Your task to perform on an android device: open app "Instagram" (install if not already installed) Image 0: 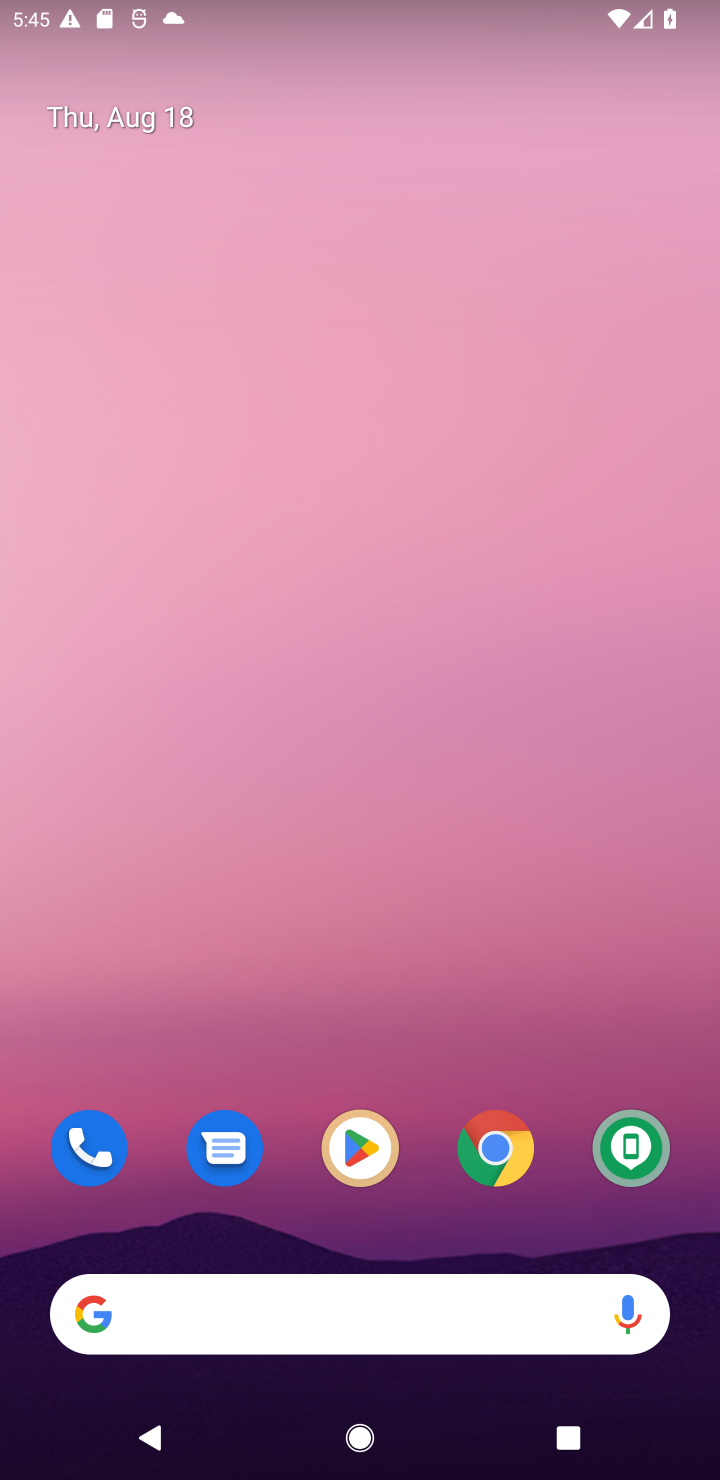
Step 0: drag from (372, 1046) to (587, 795)
Your task to perform on an android device: open app "Instagram" (install if not already installed) Image 1: 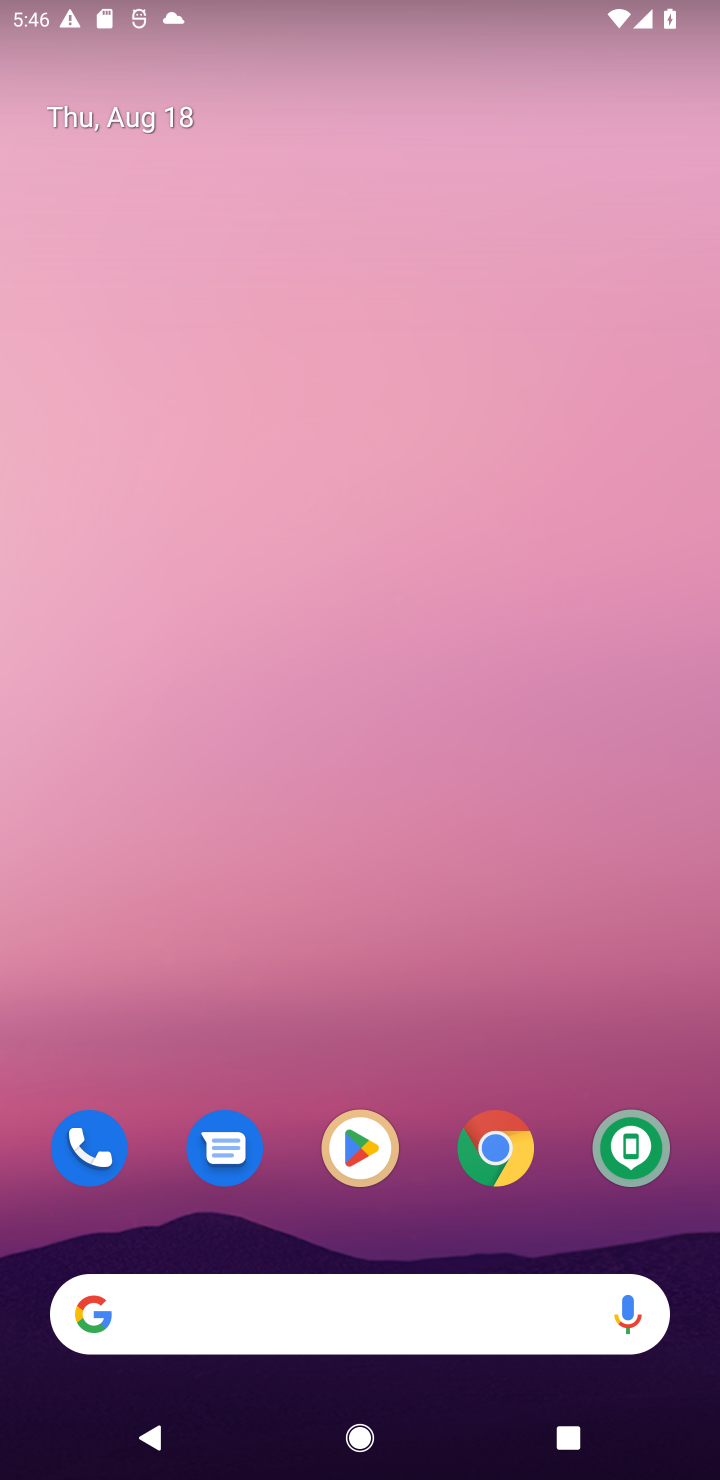
Step 1: drag from (247, 958) to (265, 0)
Your task to perform on an android device: open app "Instagram" (install if not already installed) Image 2: 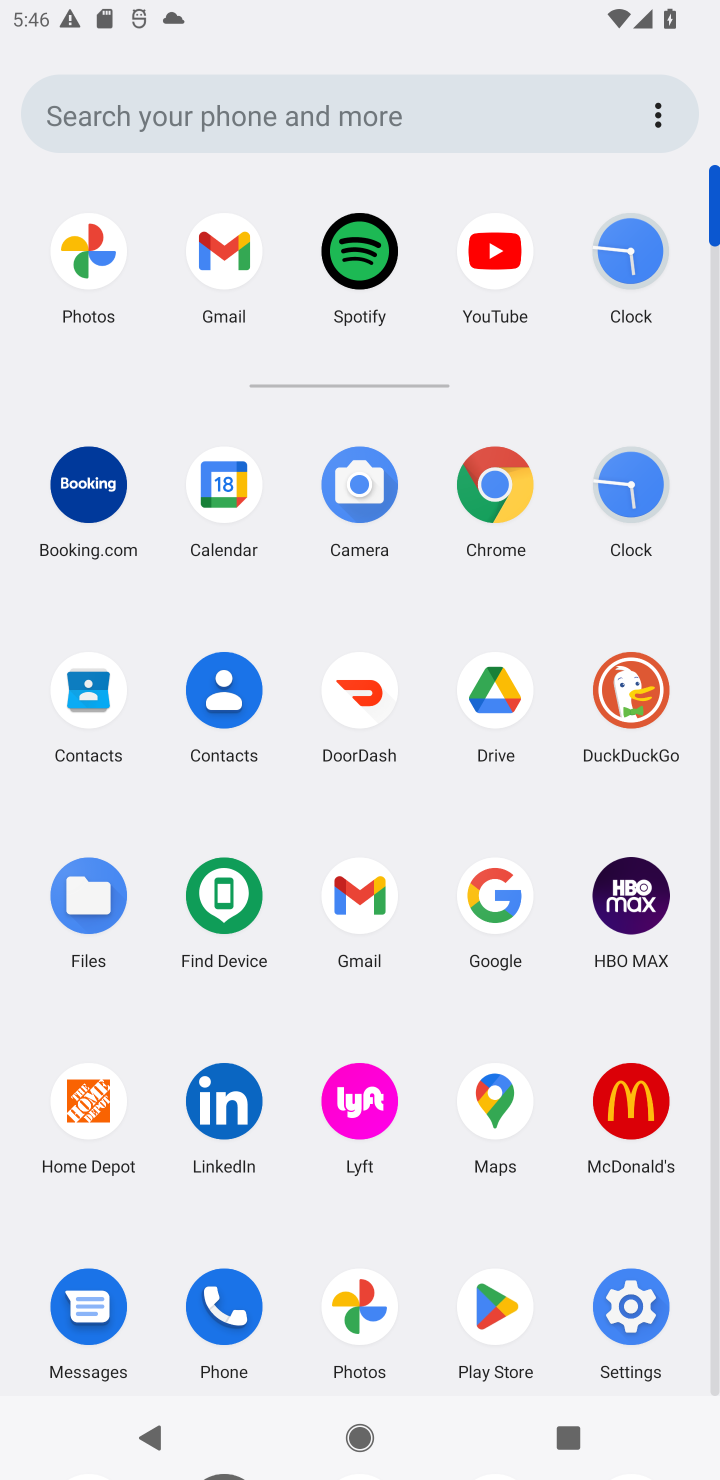
Step 2: click (497, 1305)
Your task to perform on an android device: open app "Instagram" (install if not already installed) Image 3: 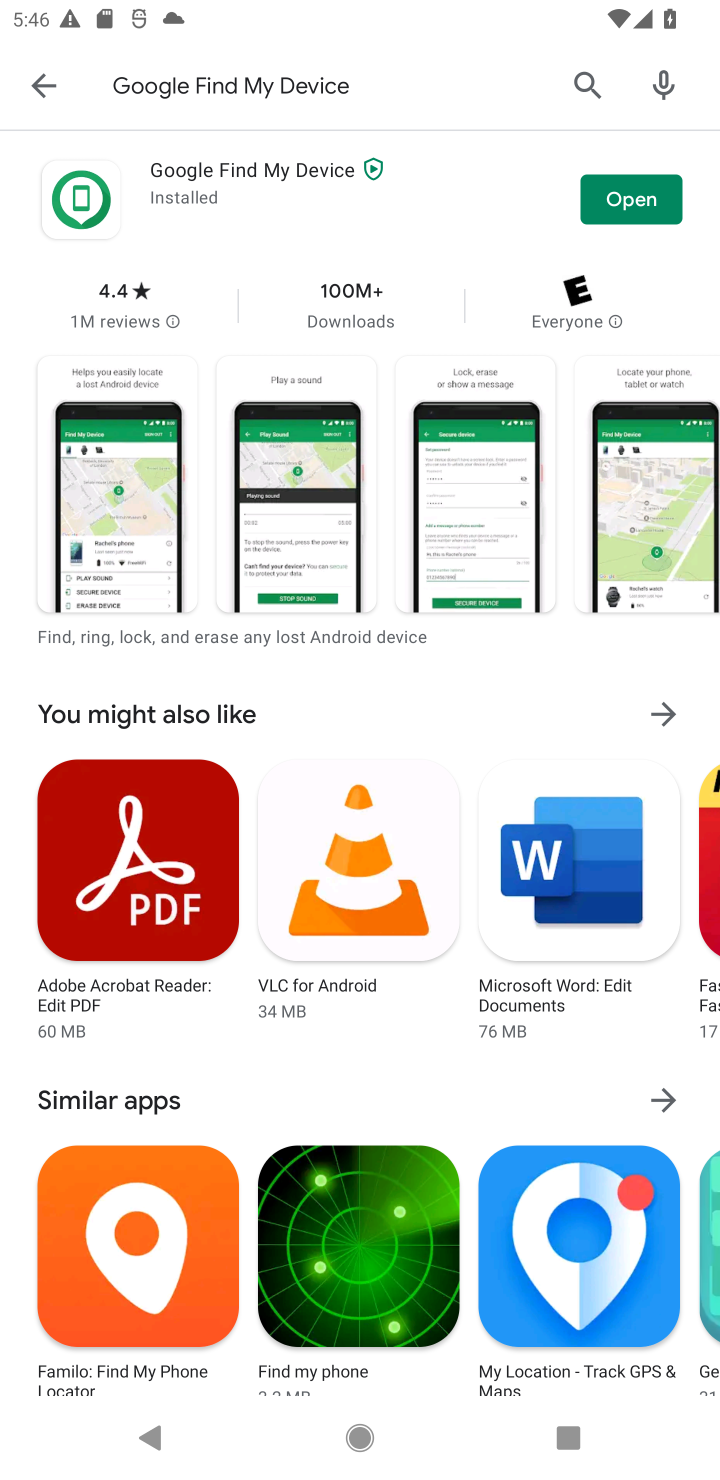
Step 3: press back button
Your task to perform on an android device: open app "Instagram" (install if not already installed) Image 4: 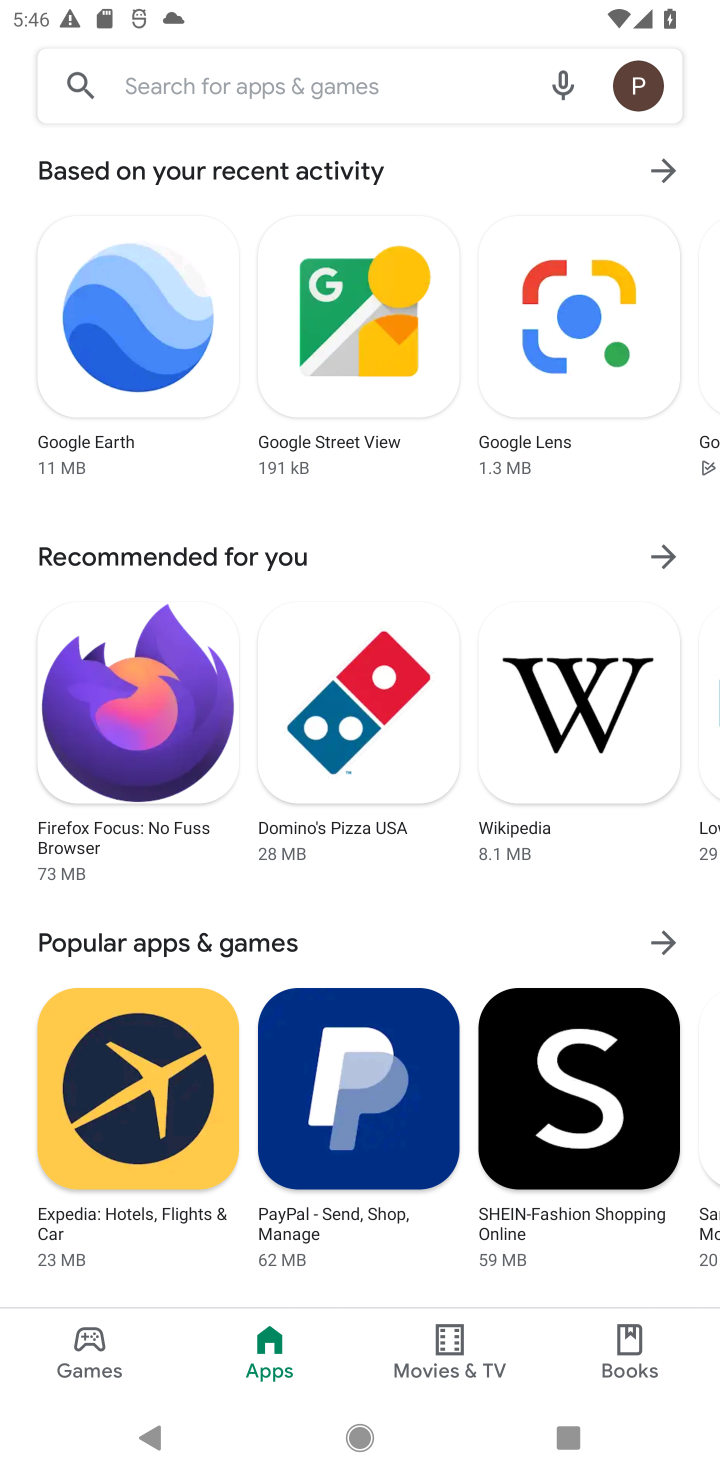
Step 4: click (144, 89)
Your task to perform on an android device: open app "Instagram" (install if not already installed) Image 5: 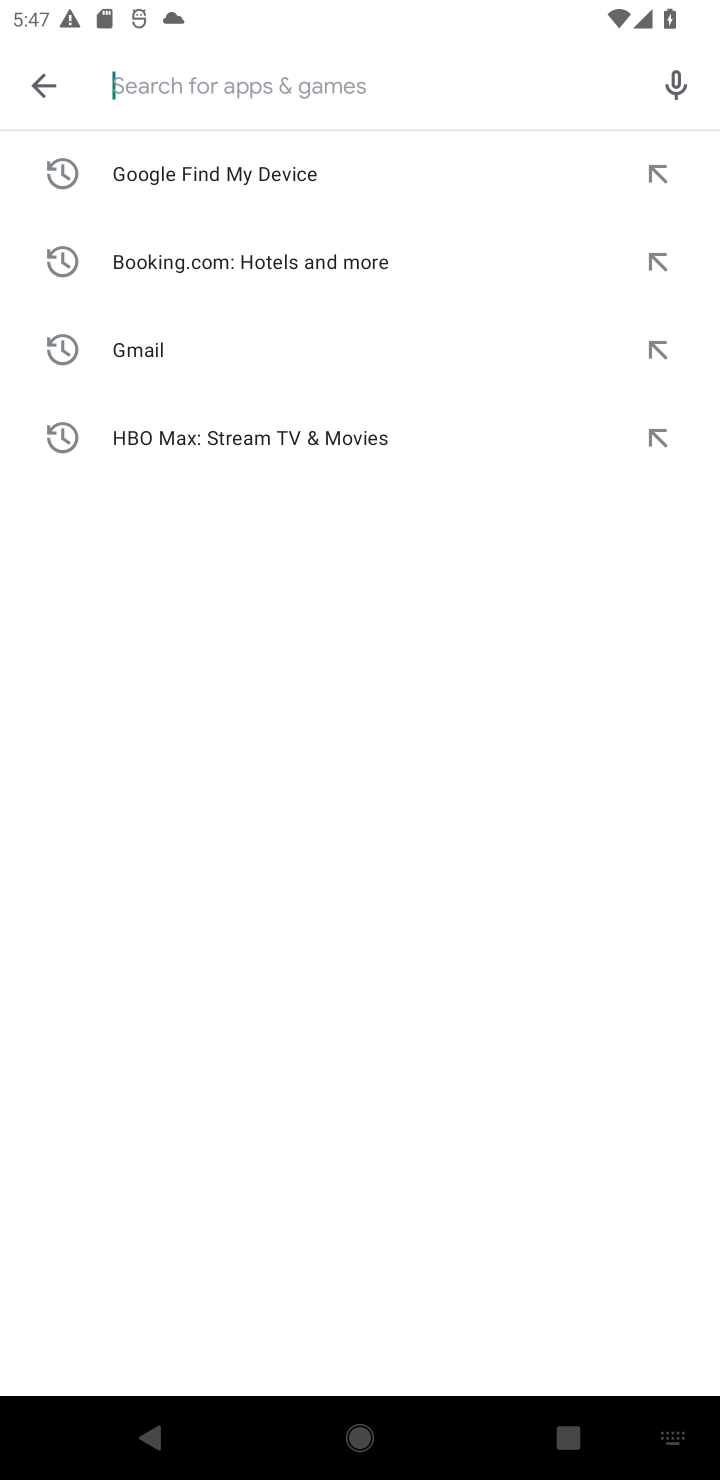
Step 5: type "Instagram"
Your task to perform on an android device: open app "Instagram" (install if not already installed) Image 6: 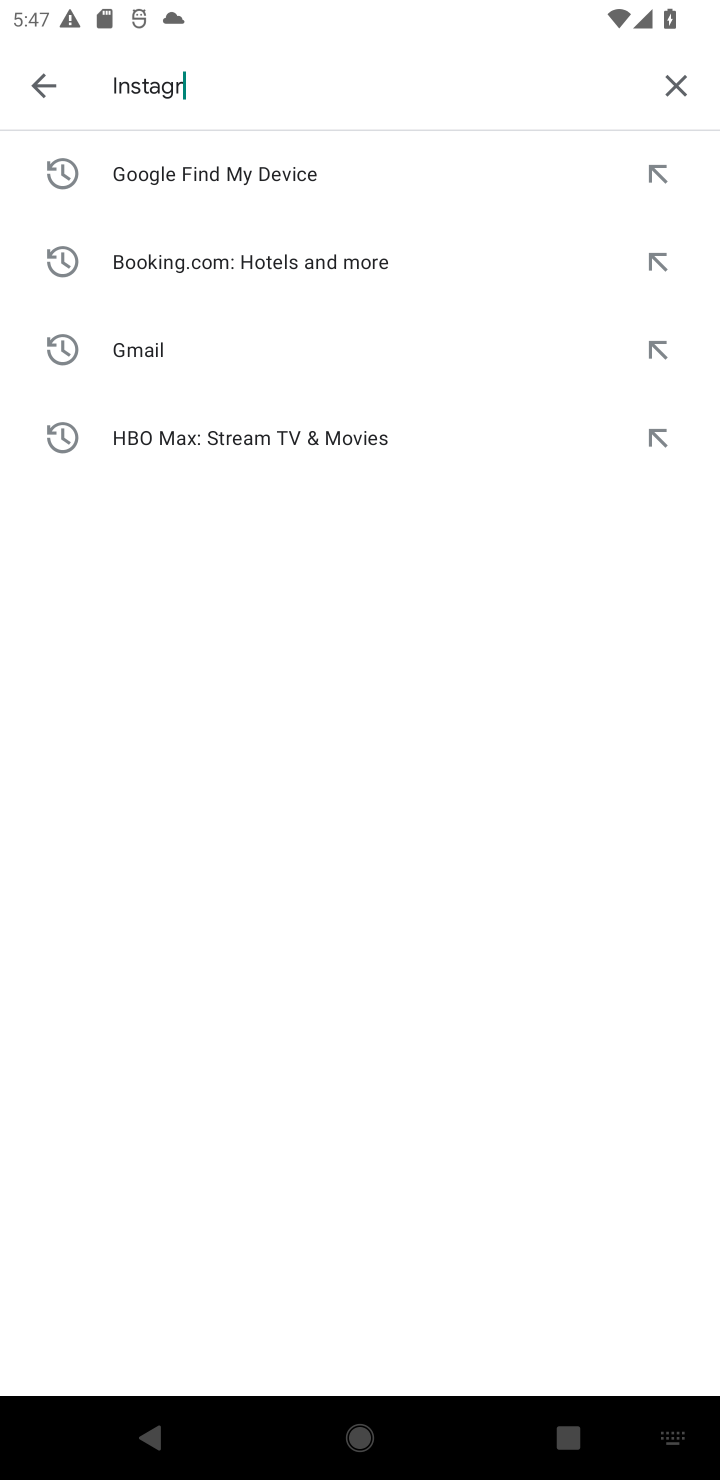
Step 6: press enter
Your task to perform on an android device: open app "Instagram" (install if not already installed) Image 7: 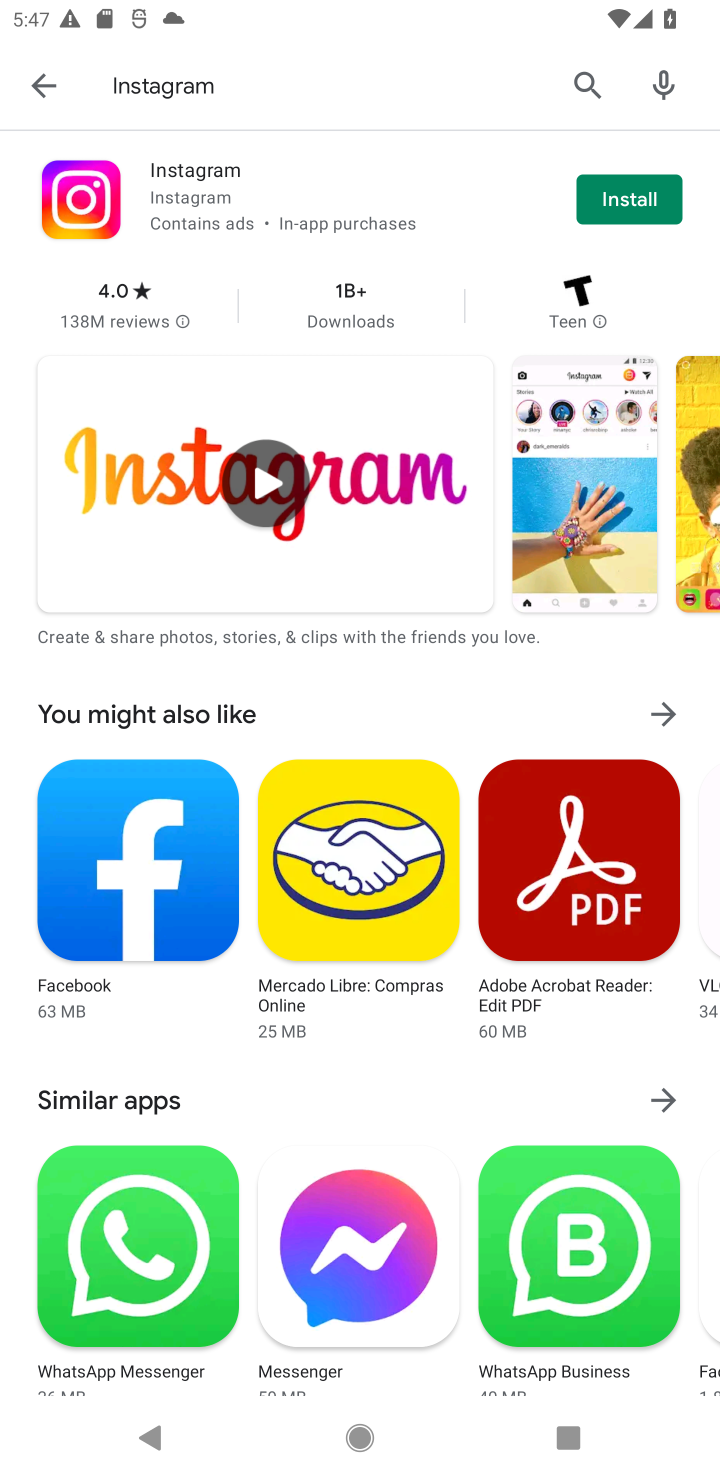
Step 7: click (615, 206)
Your task to perform on an android device: open app "Instagram" (install if not already installed) Image 8: 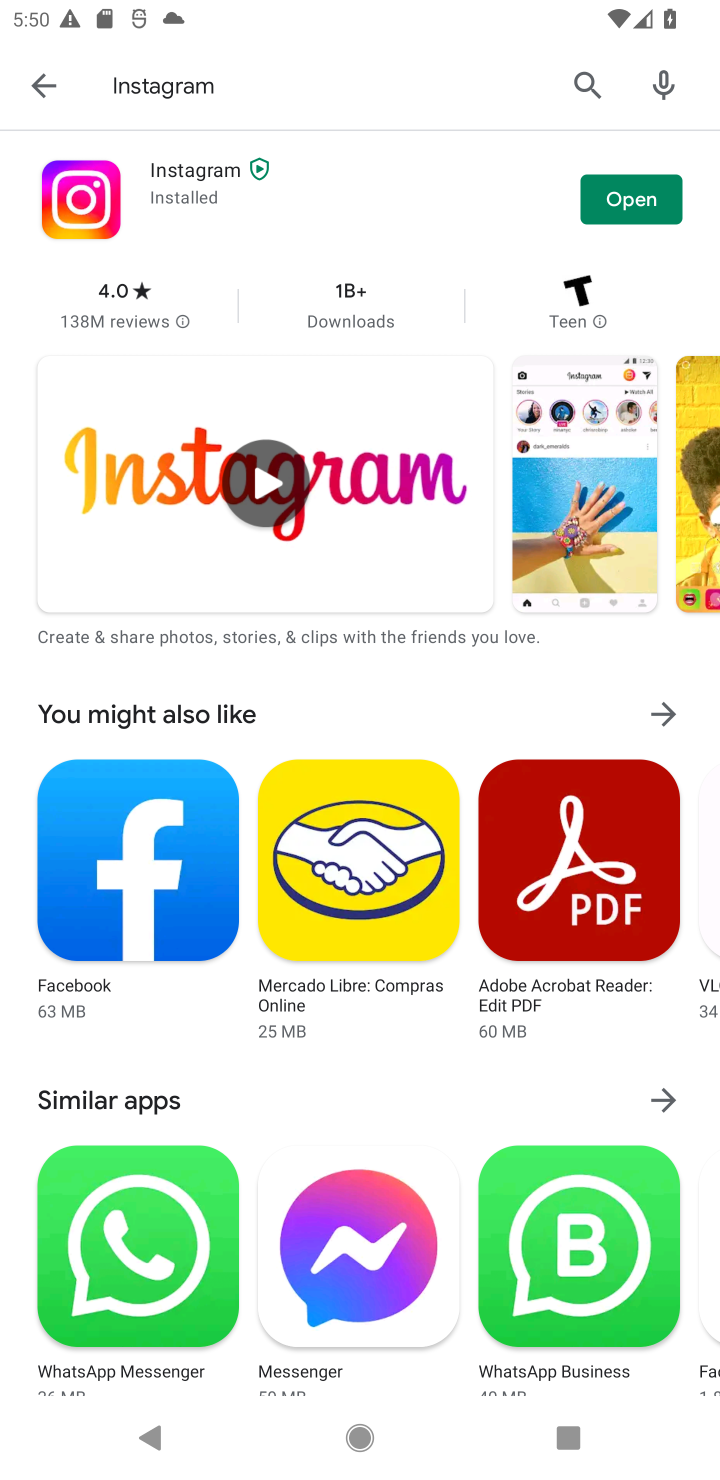
Step 8: task complete